Your task to perform on an android device: Show me popular games on the Play Store Image 0: 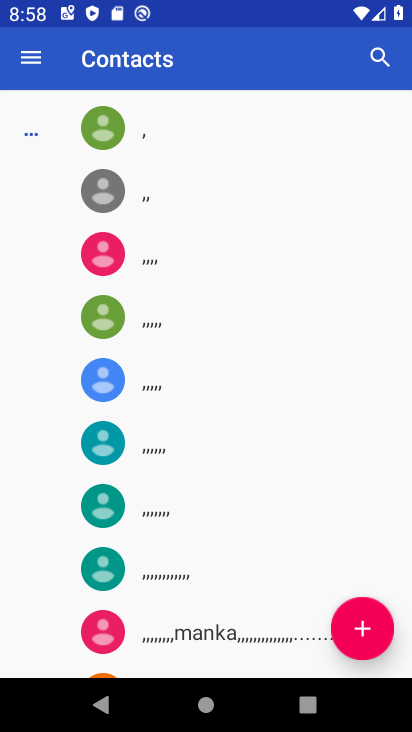
Step 0: press home button
Your task to perform on an android device: Show me popular games on the Play Store Image 1: 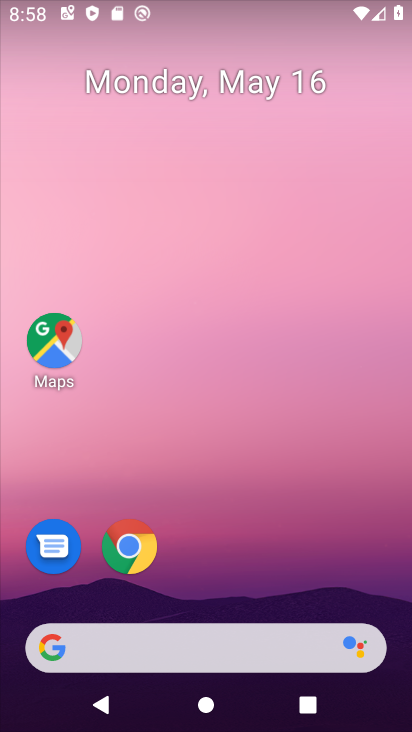
Step 1: drag from (258, 673) to (239, 222)
Your task to perform on an android device: Show me popular games on the Play Store Image 2: 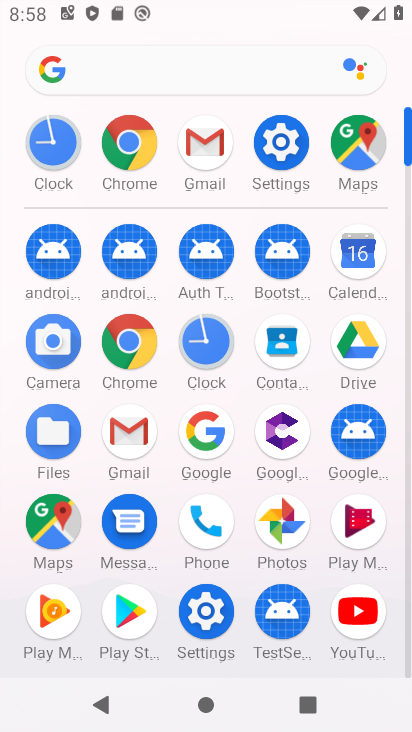
Step 2: click (132, 608)
Your task to perform on an android device: Show me popular games on the Play Store Image 3: 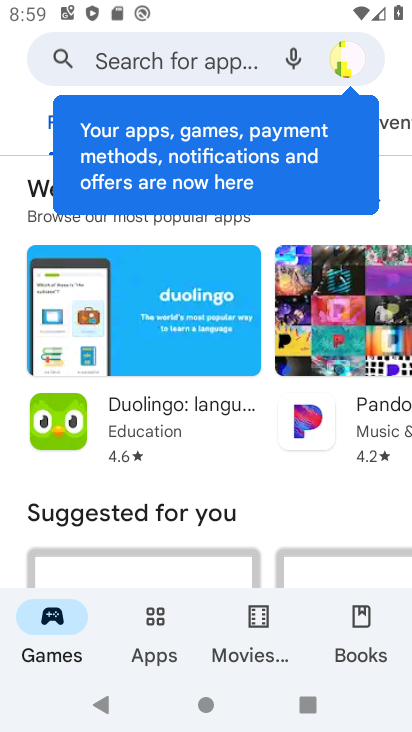
Step 3: click (168, 76)
Your task to perform on an android device: Show me popular games on the Play Store Image 4: 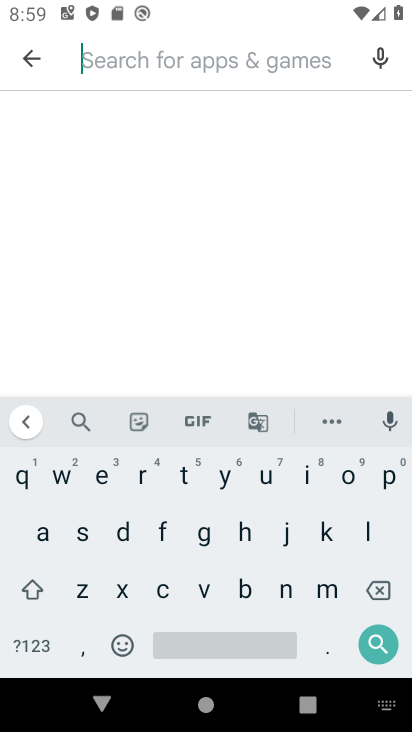
Step 4: click (390, 474)
Your task to perform on an android device: Show me popular games on the Play Store Image 5: 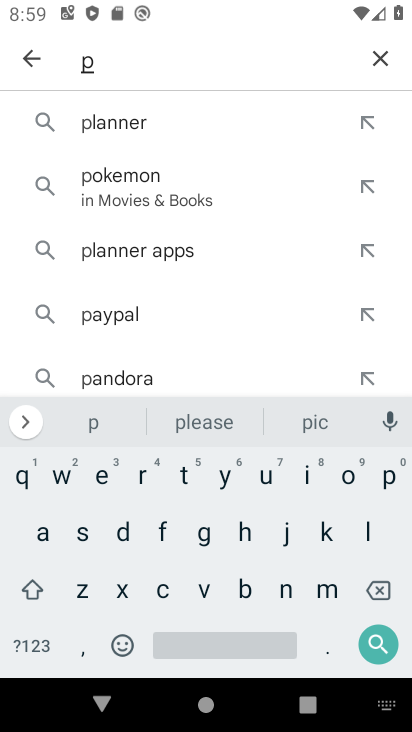
Step 5: click (348, 479)
Your task to perform on an android device: Show me popular games on the Play Store Image 6: 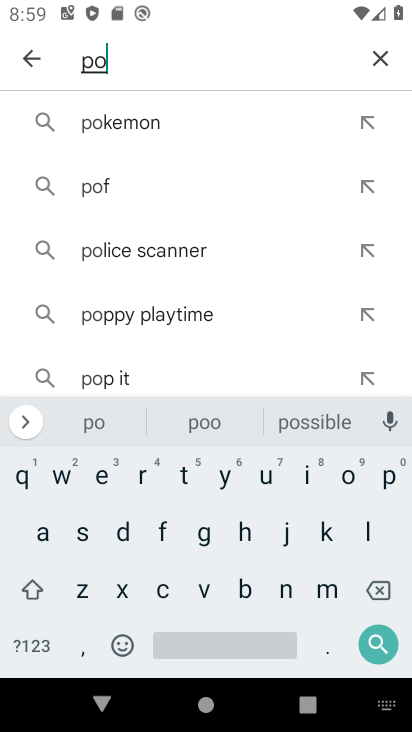
Step 6: click (381, 480)
Your task to perform on an android device: Show me popular games on the Play Store Image 7: 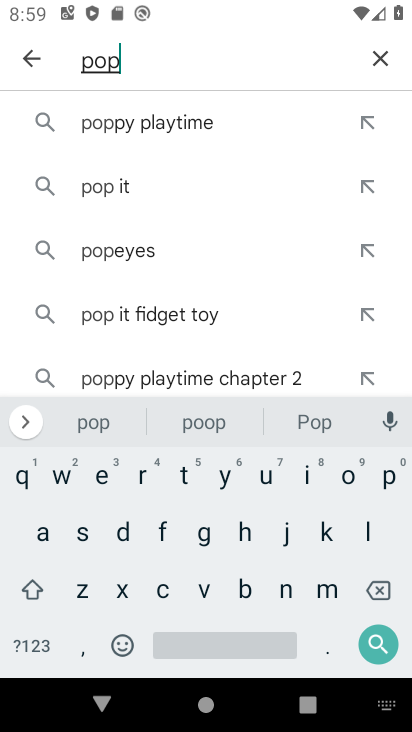
Step 7: click (268, 473)
Your task to perform on an android device: Show me popular games on the Play Store Image 8: 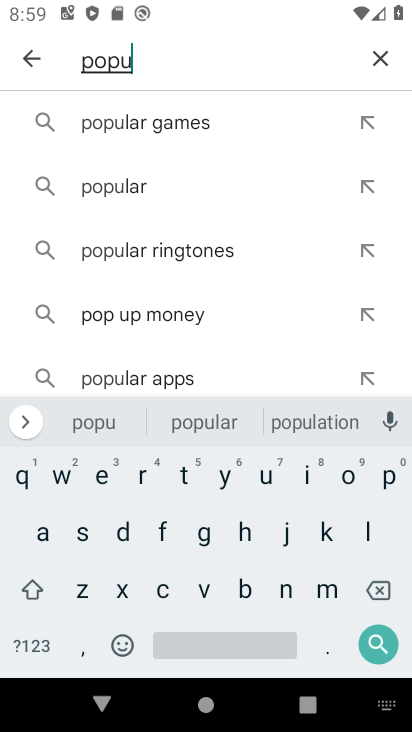
Step 8: click (144, 127)
Your task to perform on an android device: Show me popular games on the Play Store Image 9: 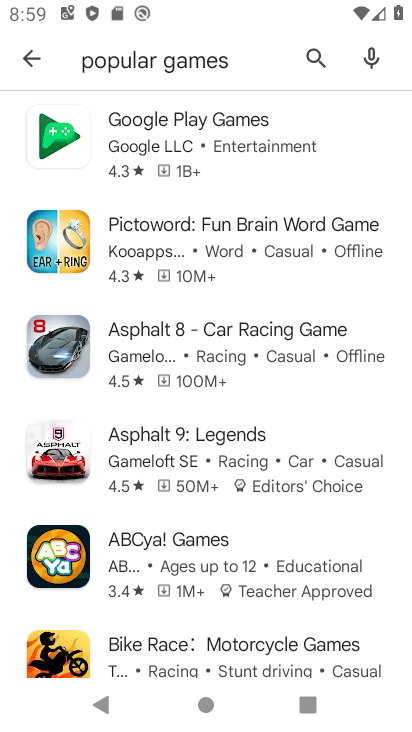
Step 9: task complete